Your task to perform on an android device: Open battery settings Image 0: 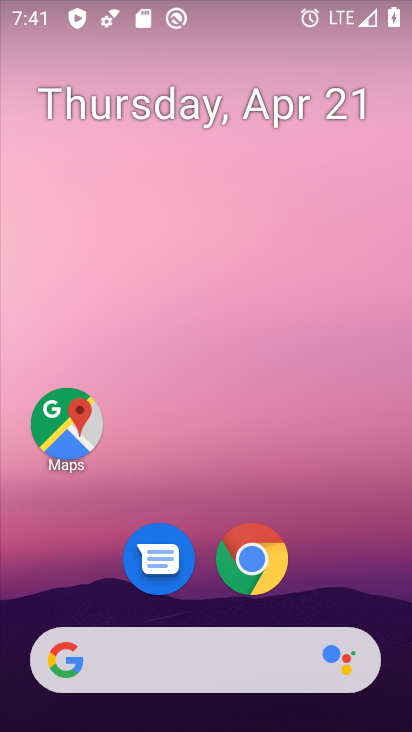
Step 0: drag from (359, 563) to (359, 128)
Your task to perform on an android device: Open battery settings Image 1: 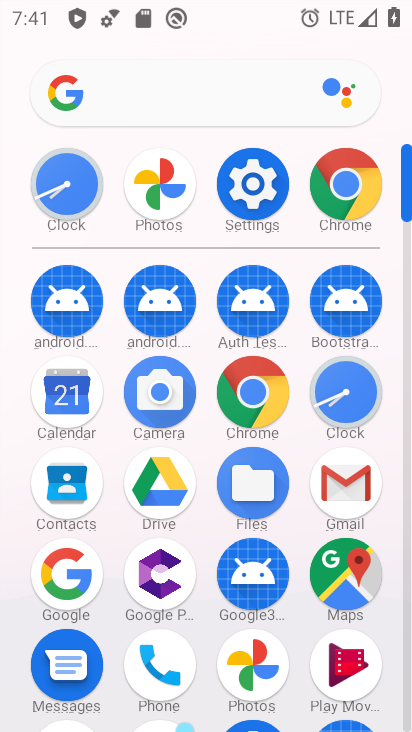
Step 1: click (254, 188)
Your task to perform on an android device: Open battery settings Image 2: 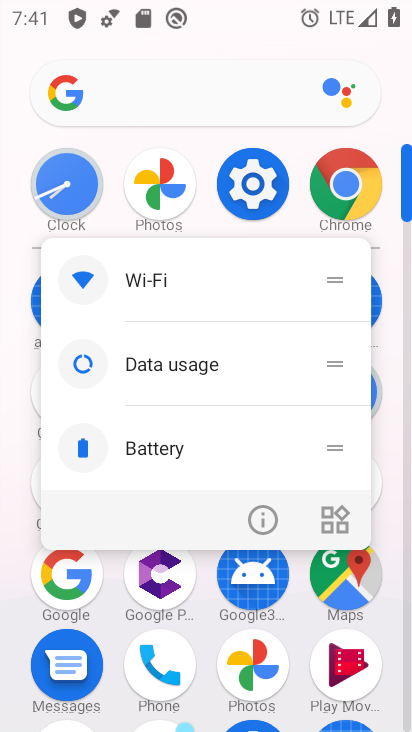
Step 2: click (260, 181)
Your task to perform on an android device: Open battery settings Image 3: 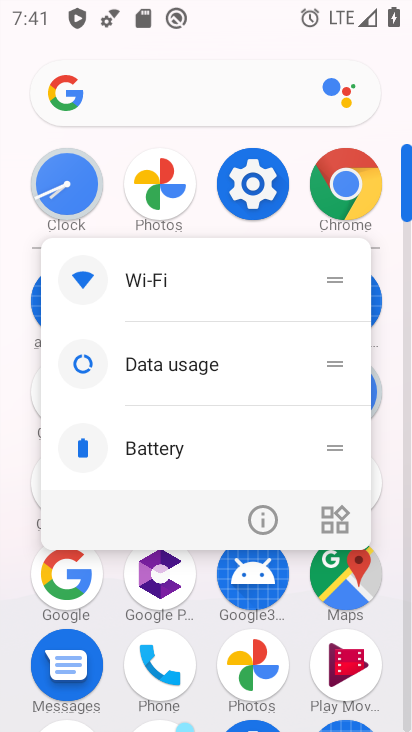
Step 3: click (262, 191)
Your task to perform on an android device: Open battery settings Image 4: 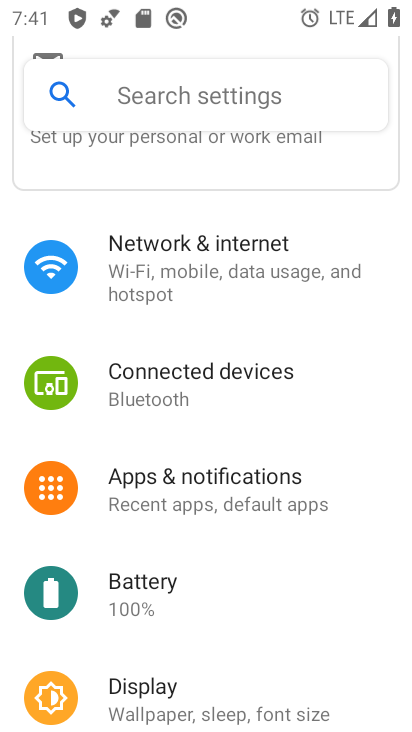
Step 4: click (180, 589)
Your task to perform on an android device: Open battery settings Image 5: 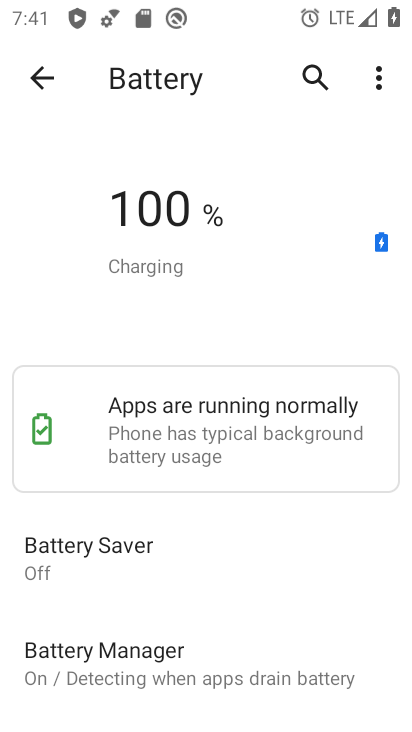
Step 5: task complete